Your task to perform on an android device: open a new tab in the chrome app Image 0: 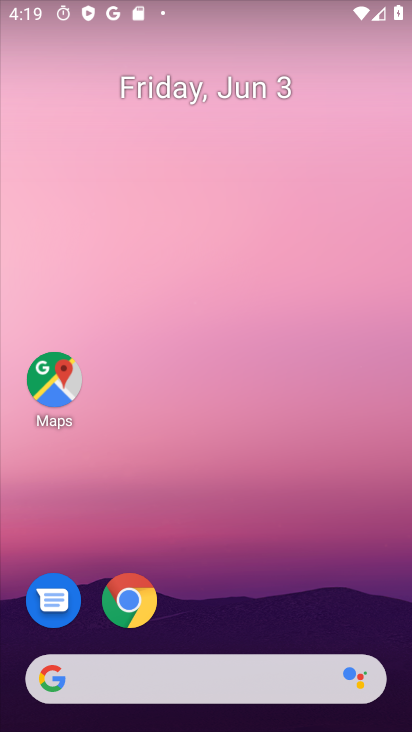
Step 0: click (130, 602)
Your task to perform on an android device: open a new tab in the chrome app Image 1: 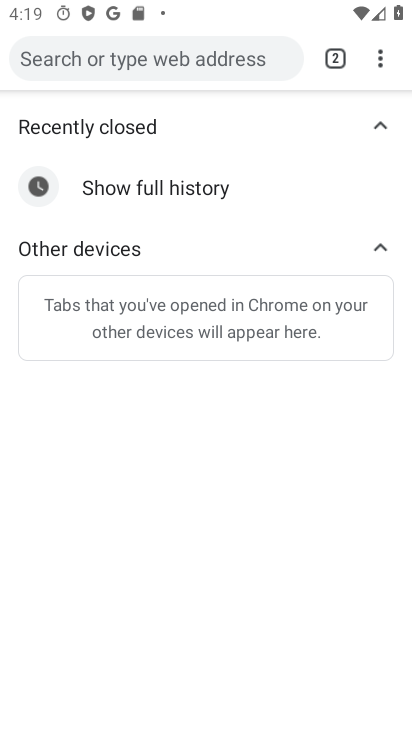
Step 1: click (380, 54)
Your task to perform on an android device: open a new tab in the chrome app Image 2: 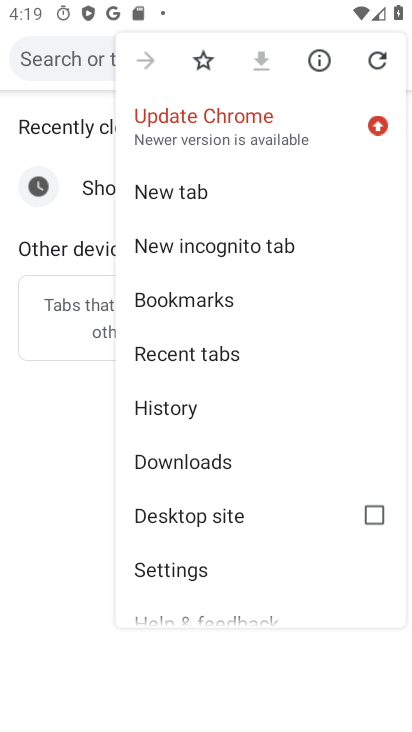
Step 2: click (176, 181)
Your task to perform on an android device: open a new tab in the chrome app Image 3: 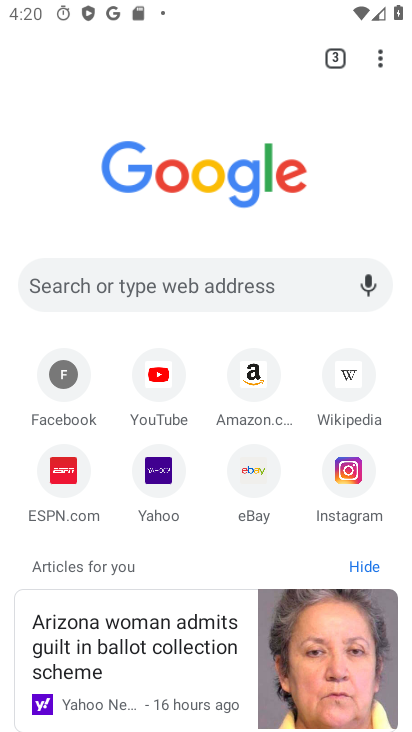
Step 3: task complete